Your task to perform on an android device: change the clock display to analog Image 0: 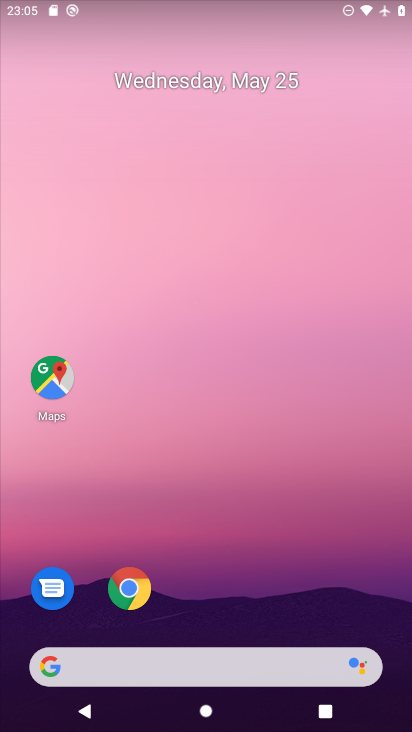
Step 0: drag from (328, 572) to (323, 184)
Your task to perform on an android device: change the clock display to analog Image 1: 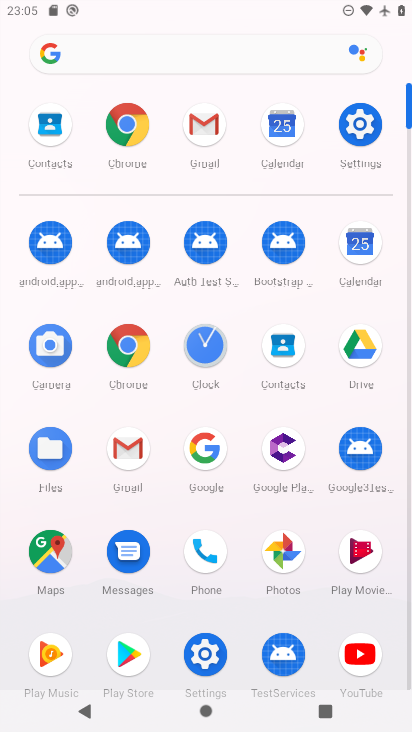
Step 1: click (214, 342)
Your task to perform on an android device: change the clock display to analog Image 2: 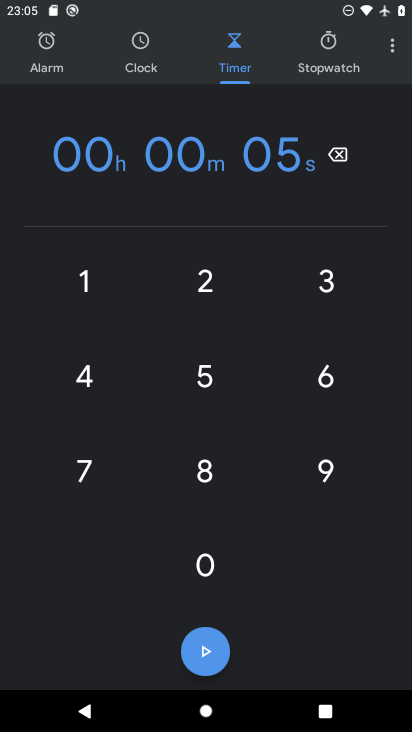
Step 2: click (391, 46)
Your task to perform on an android device: change the clock display to analog Image 3: 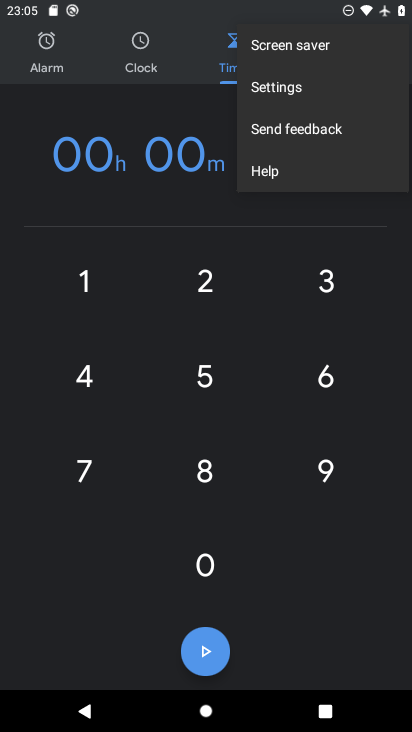
Step 3: click (292, 89)
Your task to perform on an android device: change the clock display to analog Image 4: 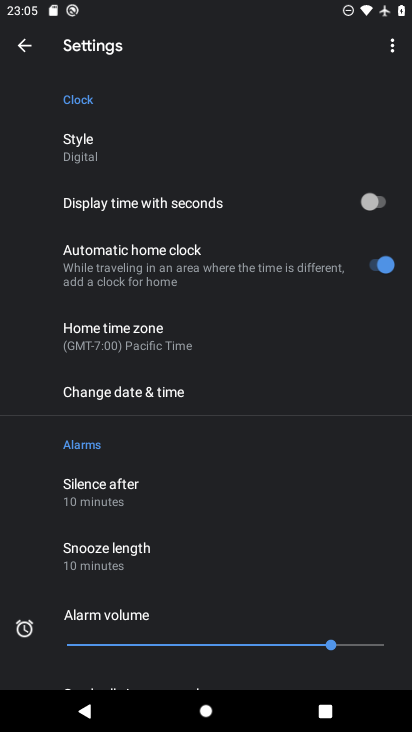
Step 4: click (94, 148)
Your task to perform on an android device: change the clock display to analog Image 5: 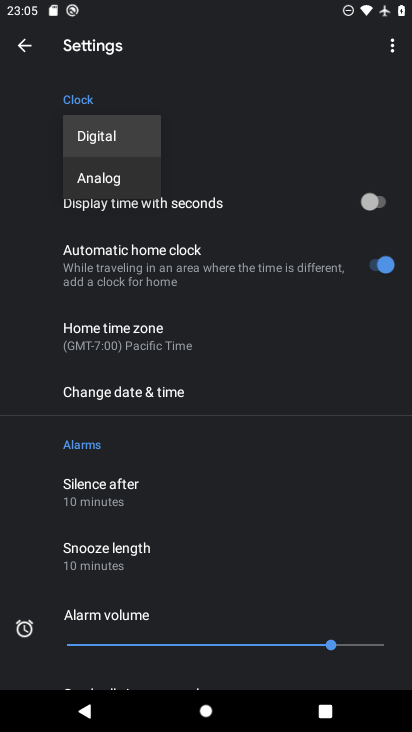
Step 5: click (97, 187)
Your task to perform on an android device: change the clock display to analog Image 6: 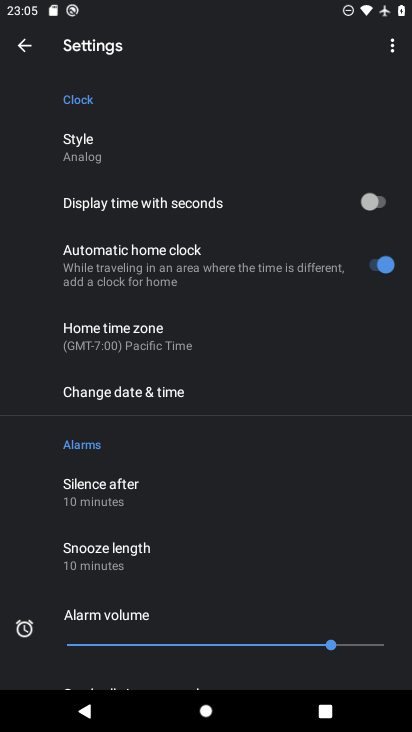
Step 6: task complete